Your task to perform on an android device: Open the web browser Image 0: 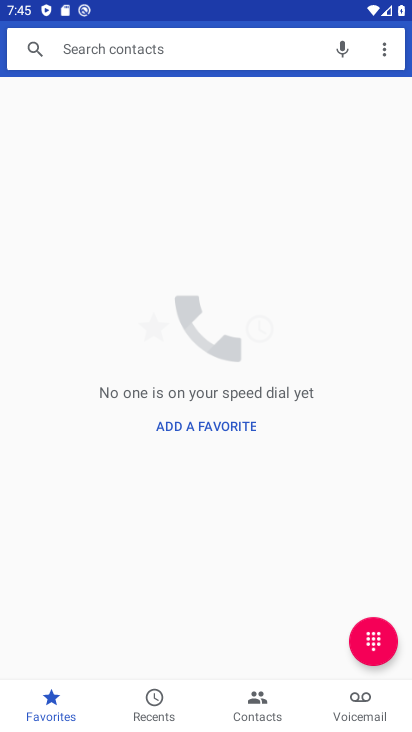
Step 0: press home button
Your task to perform on an android device: Open the web browser Image 1: 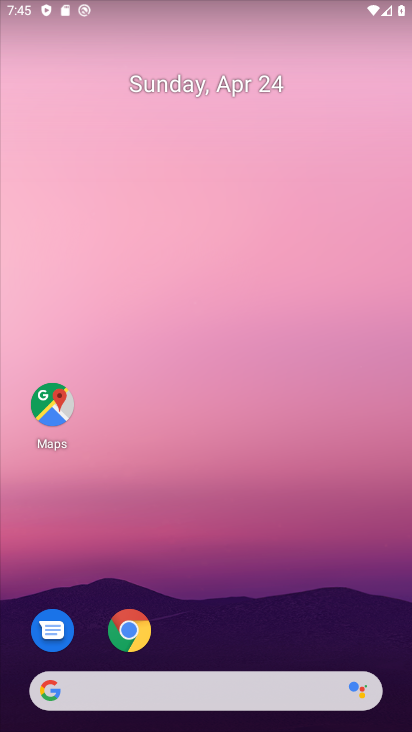
Step 1: drag from (339, 546) to (353, 92)
Your task to perform on an android device: Open the web browser Image 2: 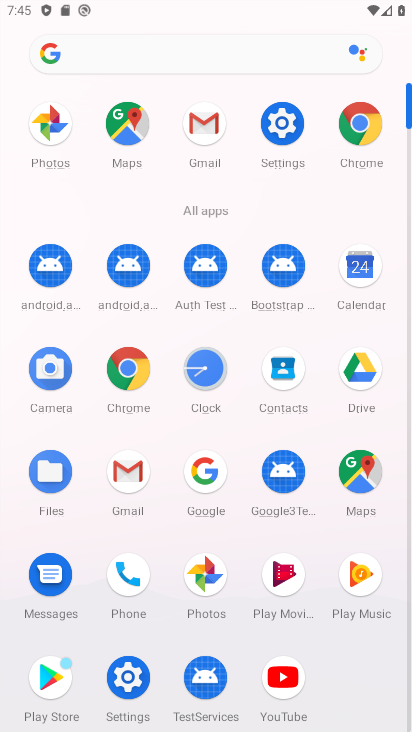
Step 2: click (126, 375)
Your task to perform on an android device: Open the web browser Image 3: 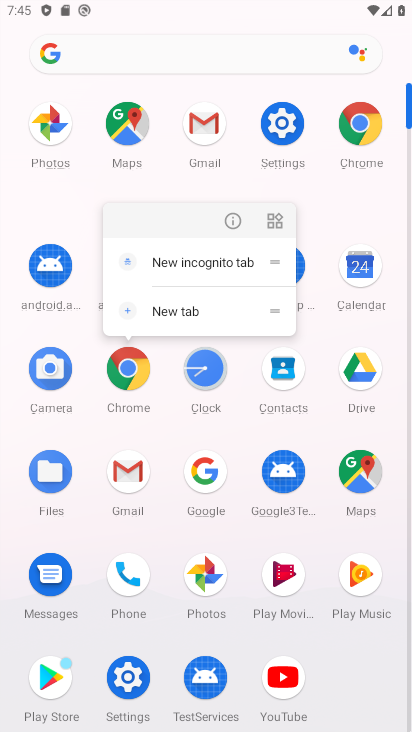
Step 3: click (114, 368)
Your task to perform on an android device: Open the web browser Image 4: 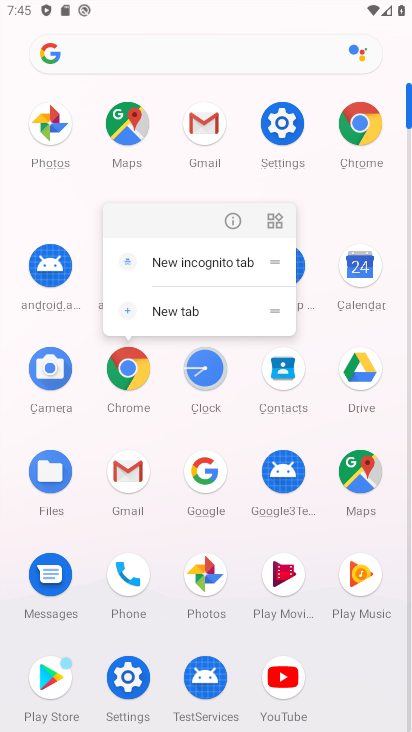
Step 4: click (135, 365)
Your task to perform on an android device: Open the web browser Image 5: 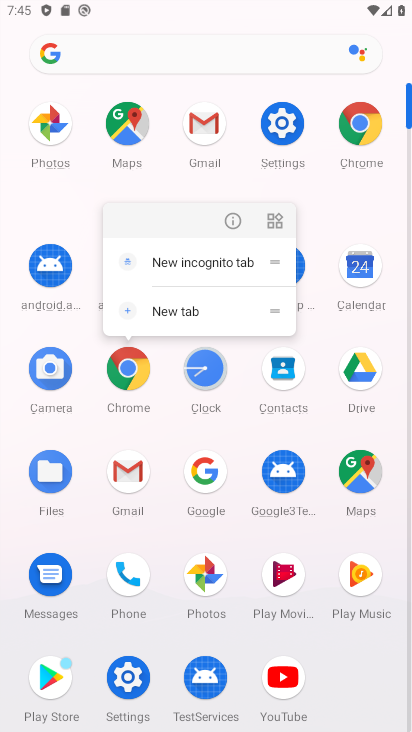
Step 5: click (120, 376)
Your task to perform on an android device: Open the web browser Image 6: 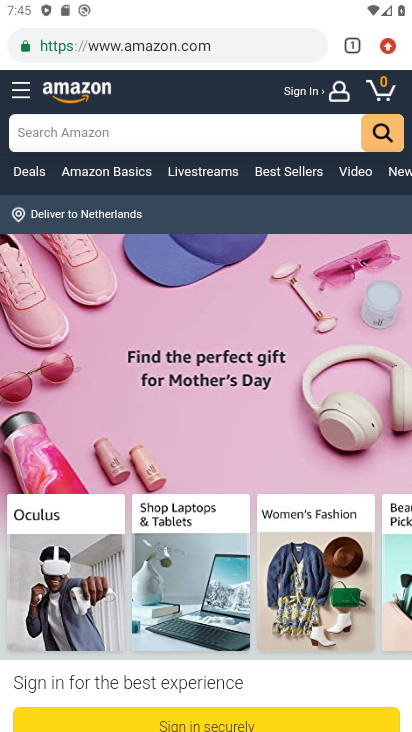
Step 6: task complete